Your task to perform on an android device: Open Chrome and go to settings Image 0: 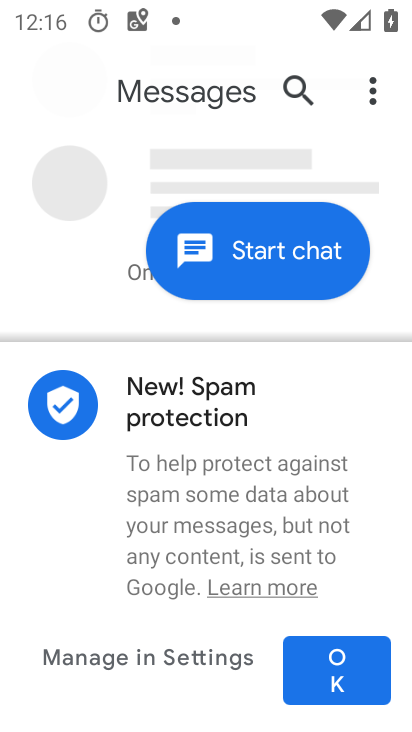
Step 0: press home button
Your task to perform on an android device: Open Chrome and go to settings Image 1: 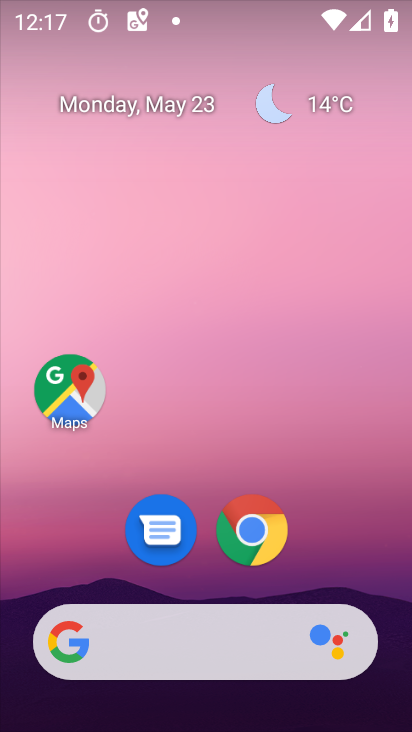
Step 1: click (253, 523)
Your task to perform on an android device: Open Chrome and go to settings Image 2: 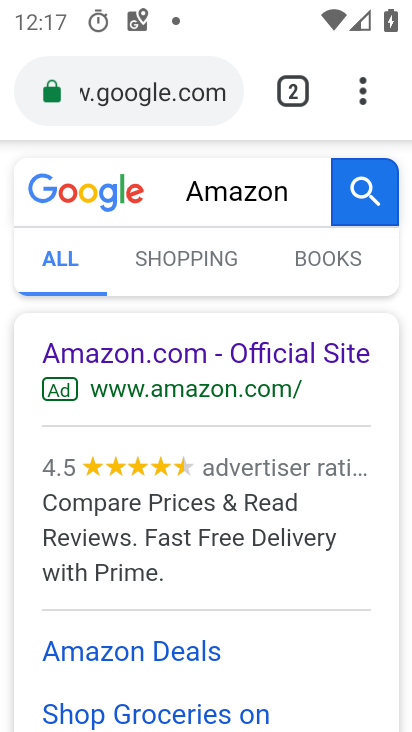
Step 2: click (359, 87)
Your task to perform on an android device: Open Chrome and go to settings Image 3: 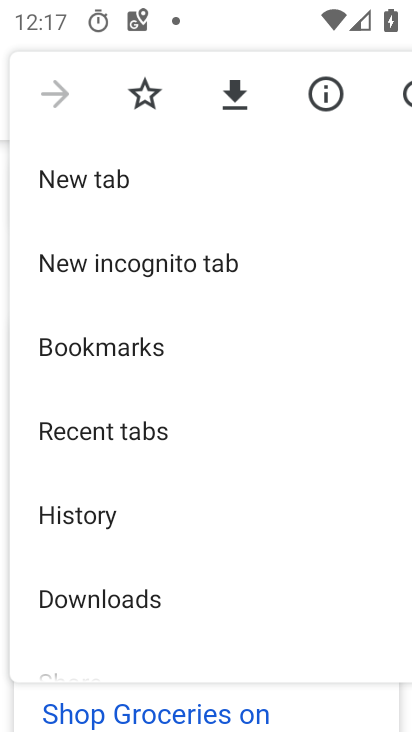
Step 3: drag from (327, 636) to (378, 252)
Your task to perform on an android device: Open Chrome and go to settings Image 4: 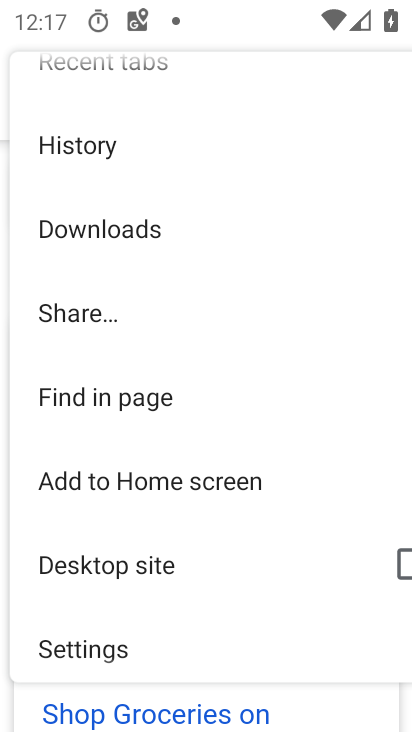
Step 4: drag from (238, 637) to (303, 244)
Your task to perform on an android device: Open Chrome and go to settings Image 5: 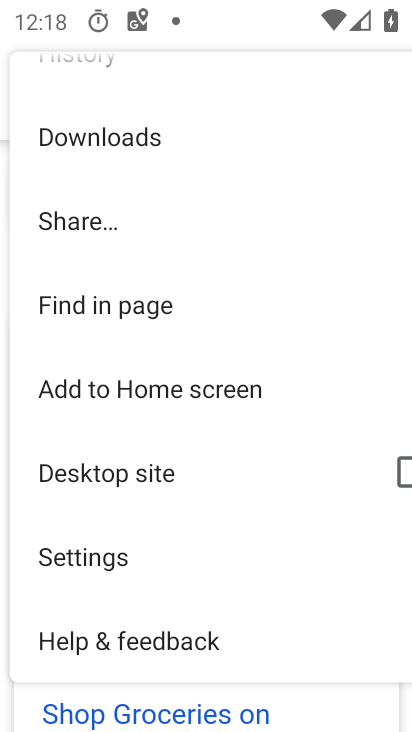
Step 5: drag from (266, 654) to (286, 336)
Your task to perform on an android device: Open Chrome and go to settings Image 6: 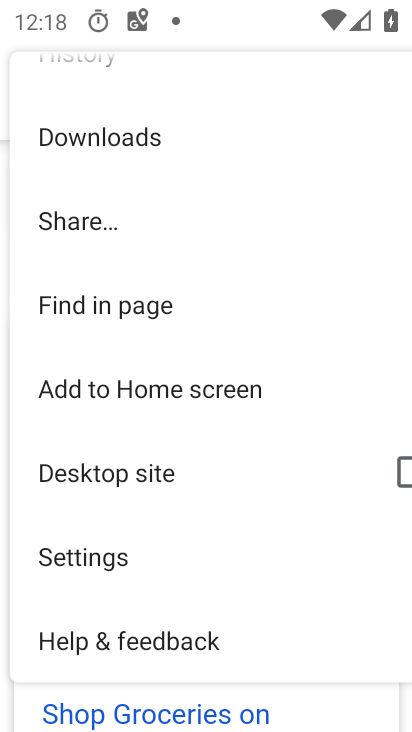
Step 6: drag from (280, 592) to (318, 221)
Your task to perform on an android device: Open Chrome and go to settings Image 7: 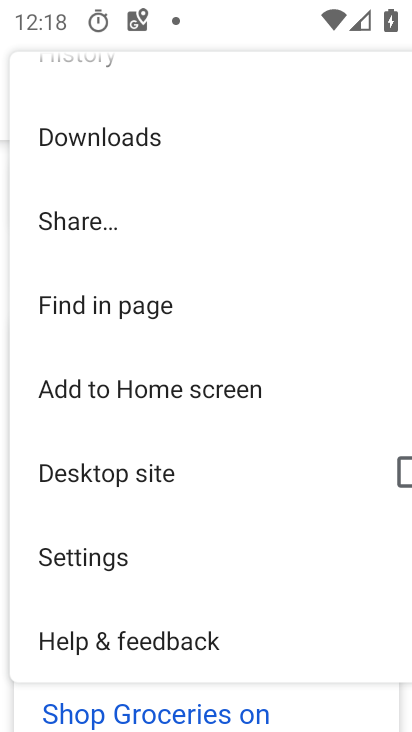
Step 7: drag from (257, 585) to (282, 387)
Your task to perform on an android device: Open Chrome and go to settings Image 8: 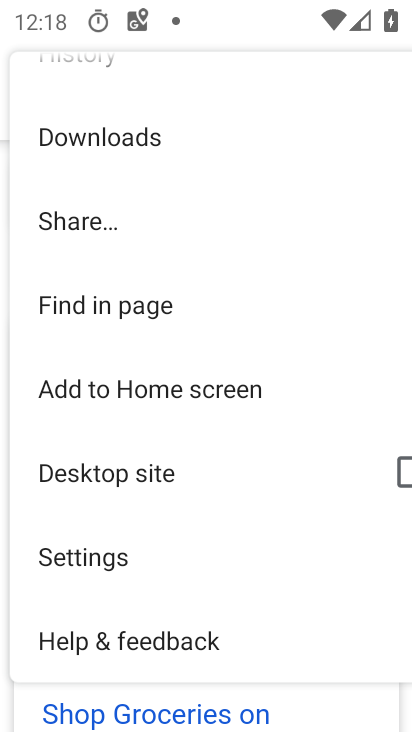
Step 8: click (109, 564)
Your task to perform on an android device: Open Chrome and go to settings Image 9: 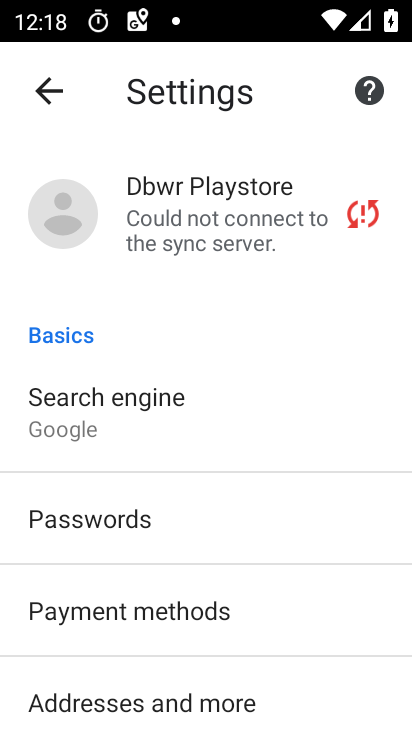
Step 9: task complete